Your task to perform on an android device: Check the news Image 0: 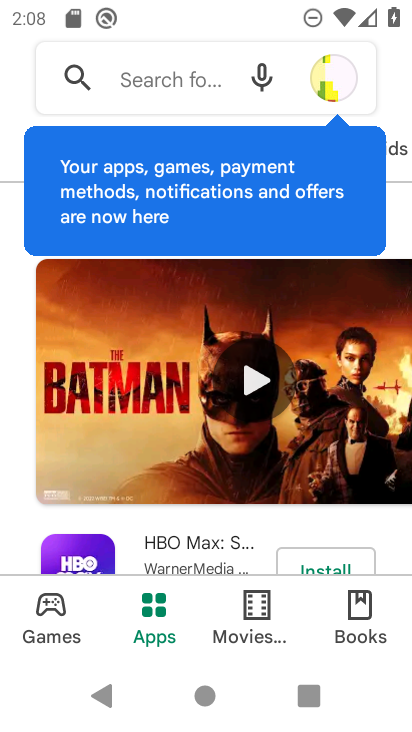
Step 0: press home button
Your task to perform on an android device: Check the news Image 1: 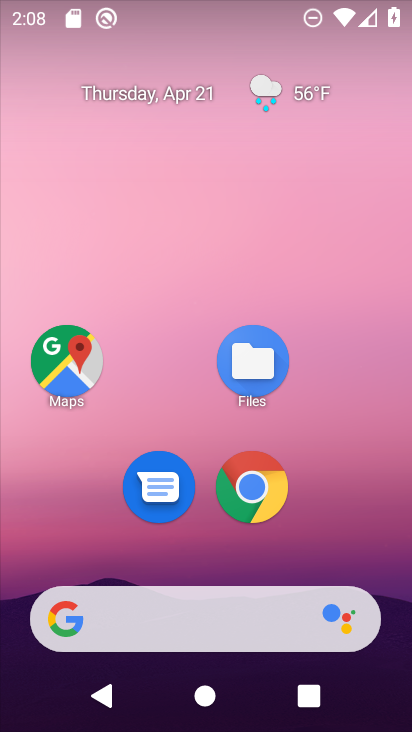
Step 1: drag from (396, 547) to (383, 119)
Your task to perform on an android device: Check the news Image 2: 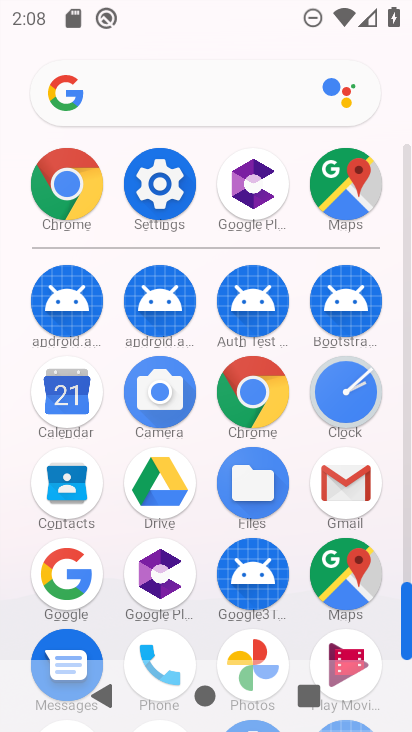
Step 2: click (267, 393)
Your task to perform on an android device: Check the news Image 3: 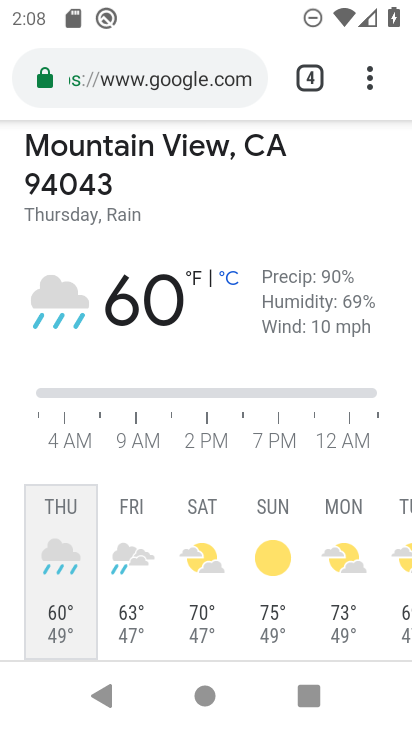
Step 3: click (206, 82)
Your task to perform on an android device: Check the news Image 4: 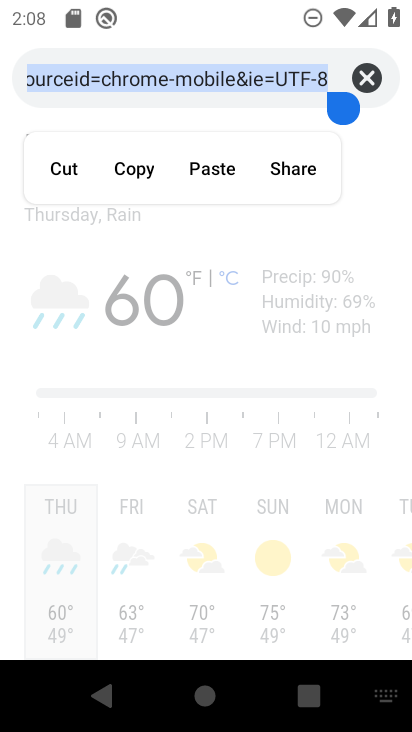
Step 4: click (364, 79)
Your task to perform on an android device: Check the news Image 5: 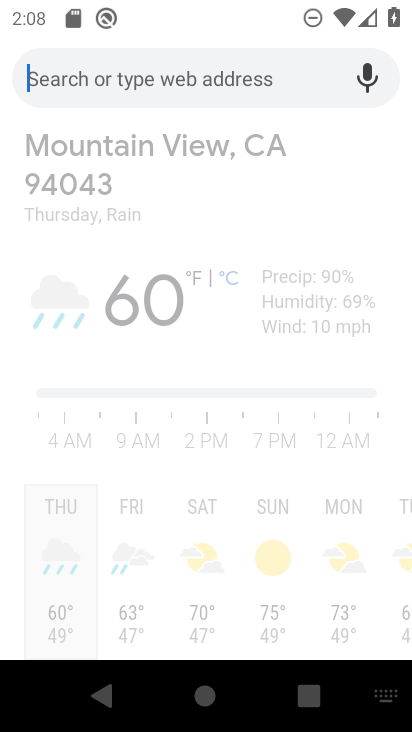
Step 5: type "news"
Your task to perform on an android device: Check the news Image 6: 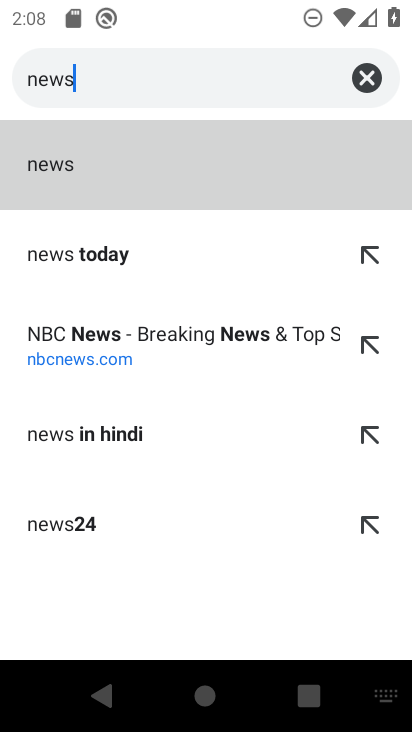
Step 6: click (64, 167)
Your task to perform on an android device: Check the news Image 7: 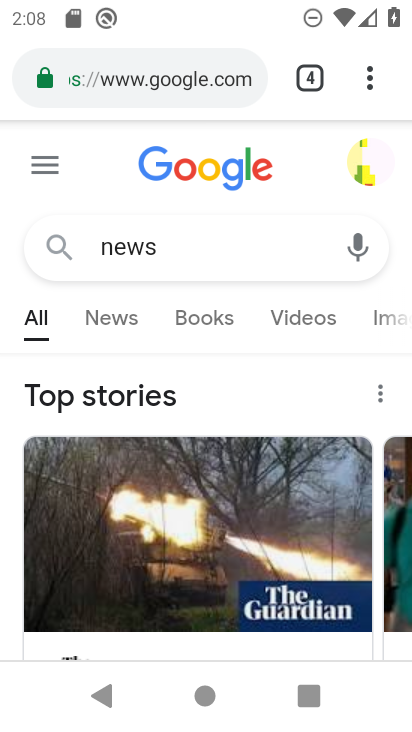
Step 7: task complete